Your task to perform on an android device: check storage Image 0: 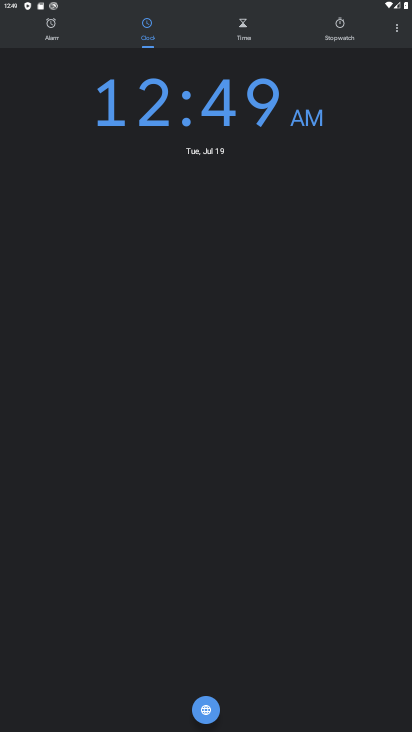
Step 0: click (148, 671)
Your task to perform on an android device: check storage Image 1: 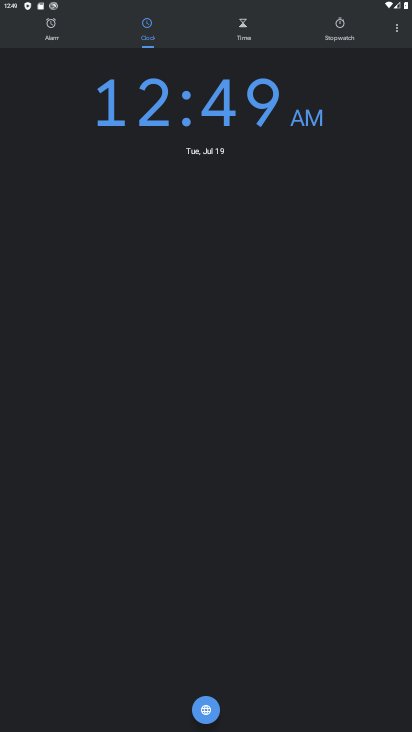
Step 1: press home button
Your task to perform on an android device: check storage Image 2: 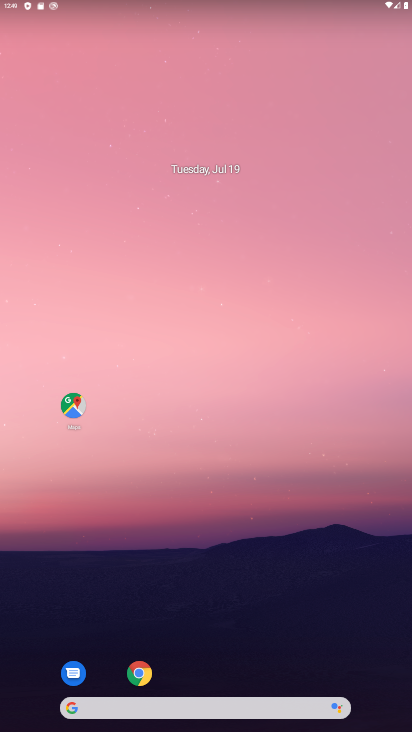
Step 2: drag from (205, 679) to (151, 45)
Your task to perform on an android device: check storage Image 3: 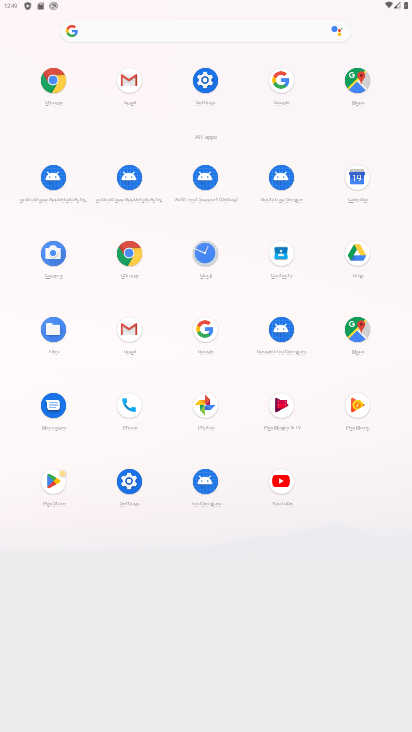
Step 3: click (118, 484)
Your task to perform on an android device: check storage Image 4: 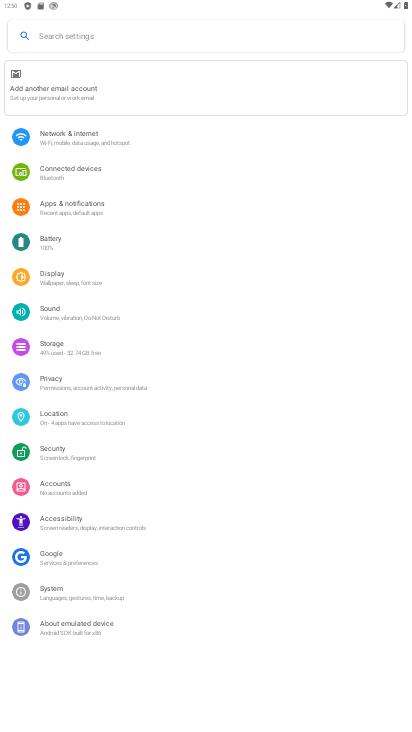
Step 4: click (63, 346)
Your task to perform on an android device: check storage Image 5: 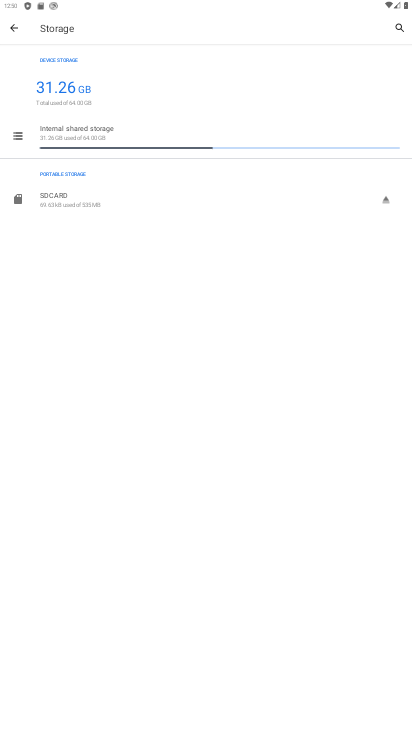
Step 5: click (48, 148)
Your task to perform on an android device: check storage Image 6: 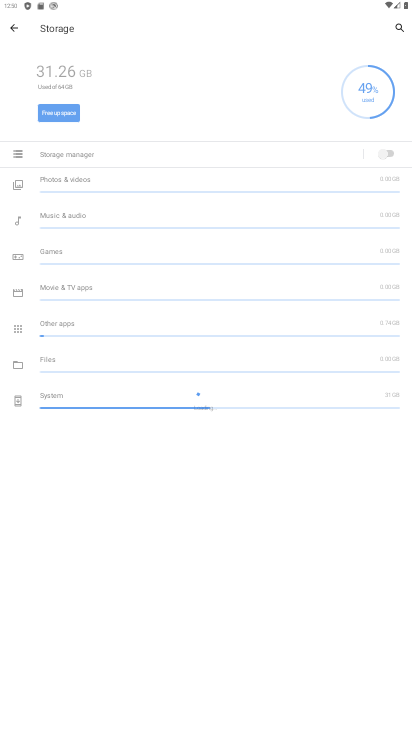
Step 6: task complete